Your task to perform on an android device: set the timer Image 0: 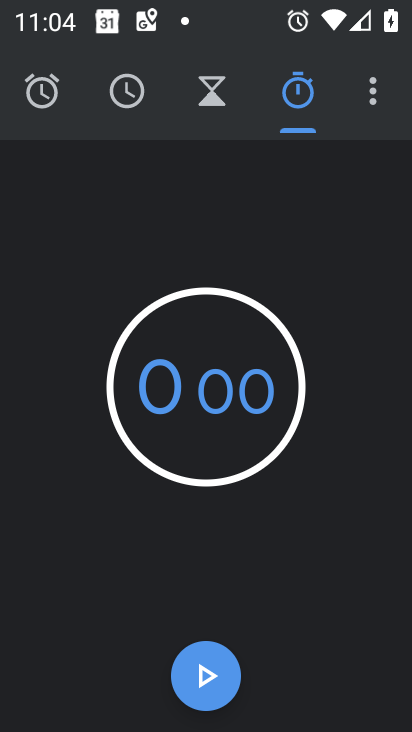
Step 0: press home button
Your task to perform on an android device: set the timer Image 1: 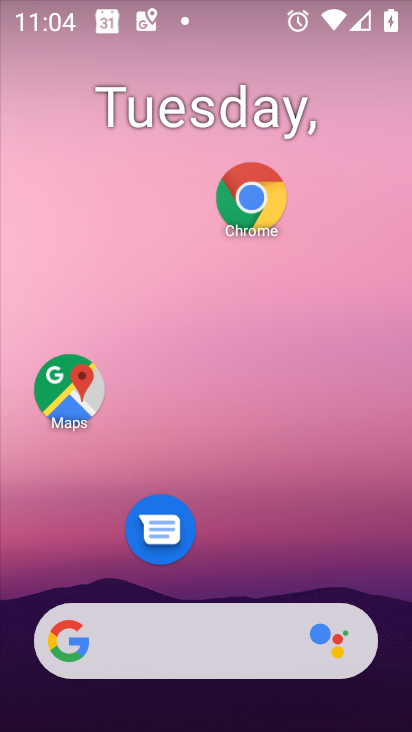
Step 1: drag from (291, 567) to (297, 170)
Your task to perform on an android device: set the timer Image 2: 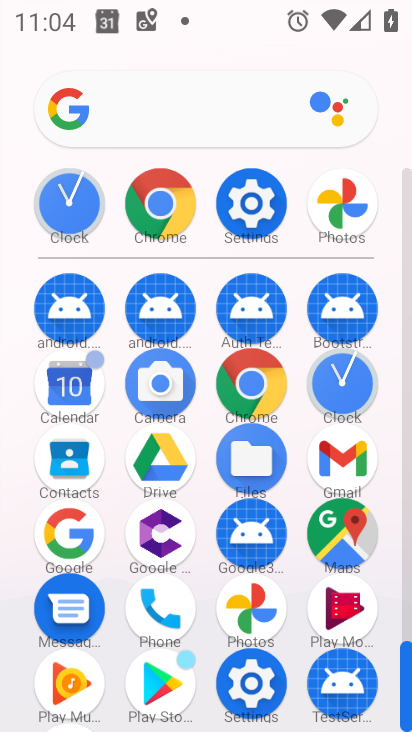
Step 2: click (334, 377)
Your task to perform on an android device: set the timer Image 3: 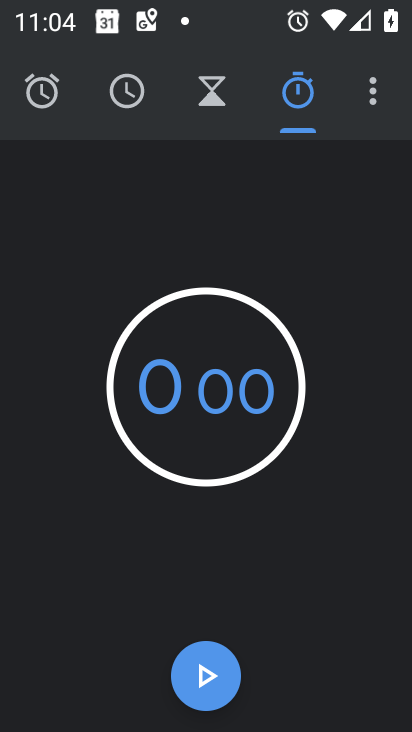
Step 3: click (231, 88)
Your task to perform on an android device: set the timer Image 4: 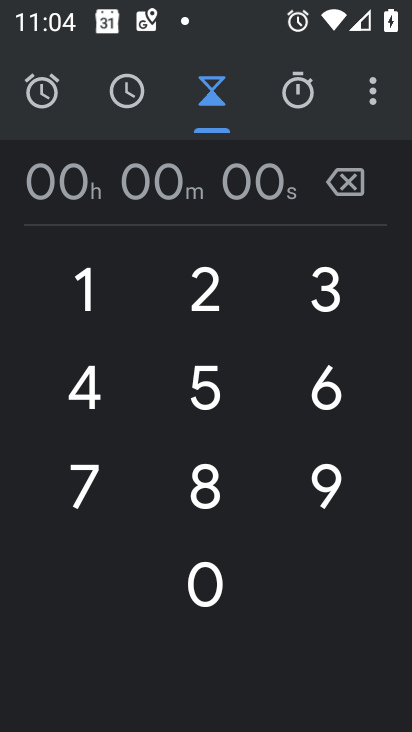
Step 4: task complete